Your task to perform on an android device: Open Yahoo.com Image 0: 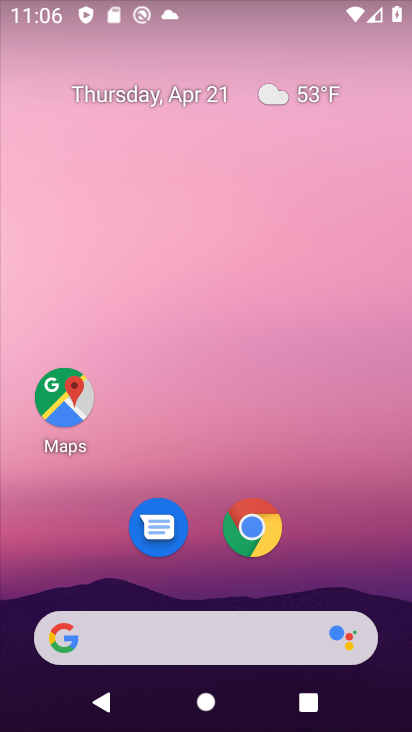
Step 0: drag from (350, 547) to (381, 171)
Your task to perform on an android device: Open Yahoo.com Image 1: 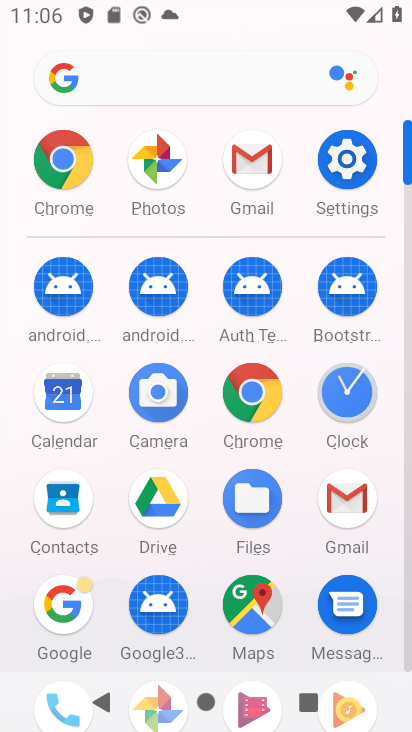
Step 1: click (258, 395)
Your task to perform on an android device: Open Yahoo.com Image 2: 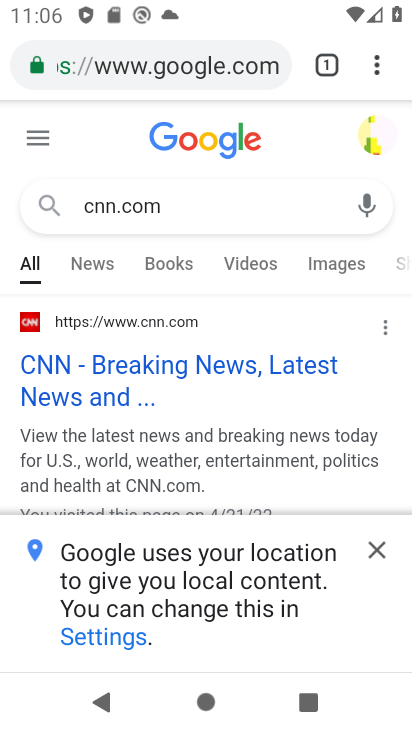
Step 2: press back button
Your task to perform on an android device: Open Yahoo.com Image 3: 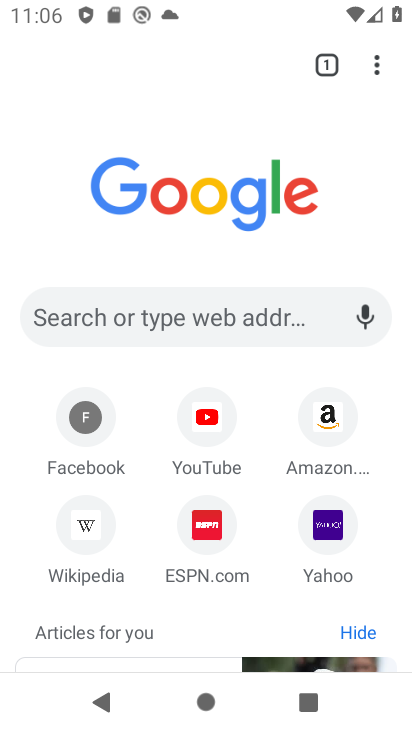
Step 3: click (308, 539)
Your task to perform on an android device: Open Yahoo.com Image 4: 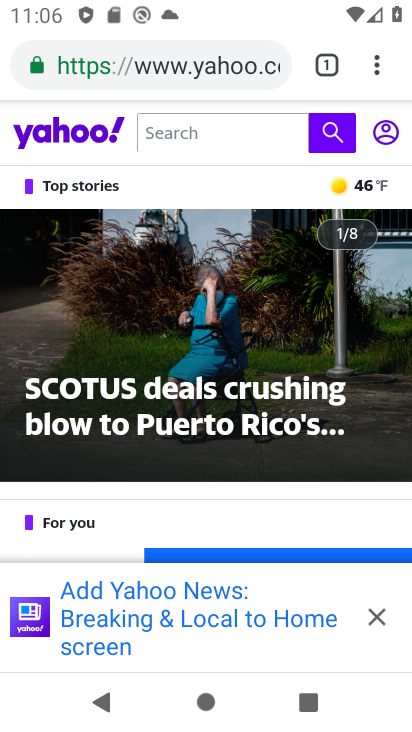
Step 4: task complete